Your task to perform on an android device: Go to Amazon Image 0: 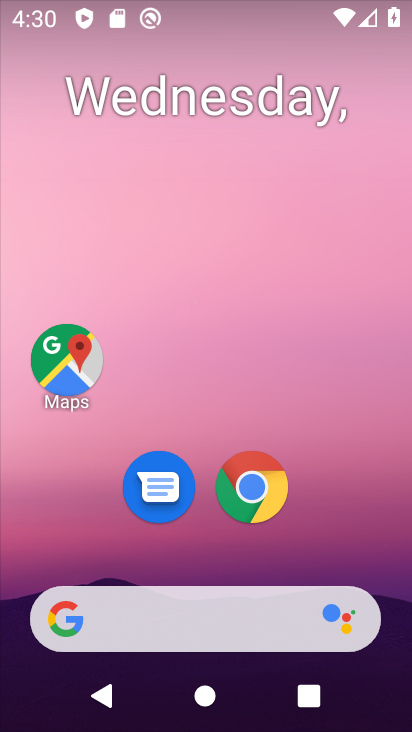
Step 0: press home button
Your task to perform on an android device: Go to Amazon Image 1: 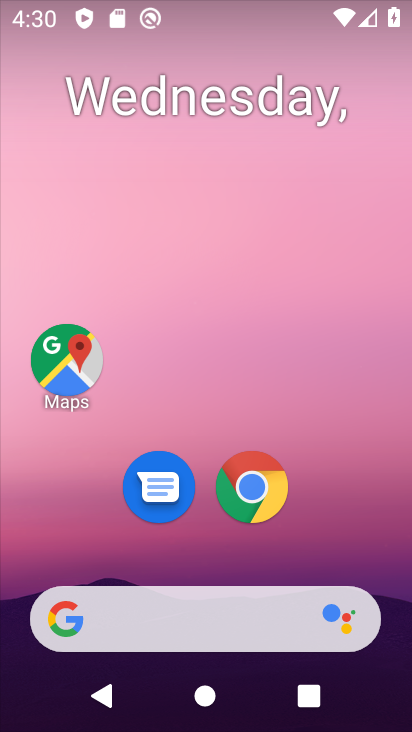
Step 1: click (245, 491)
Your task to perform on an android device: Go to Amazon Image 2: 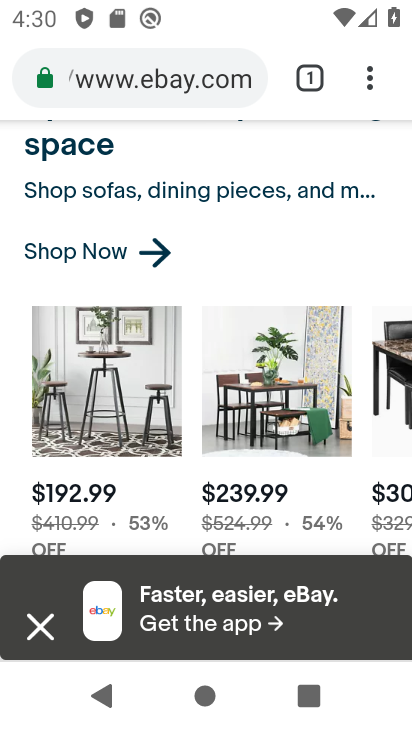
Step 2: click (376, 72)
Your task to perform on an android device: Go to Amazon Image 3: 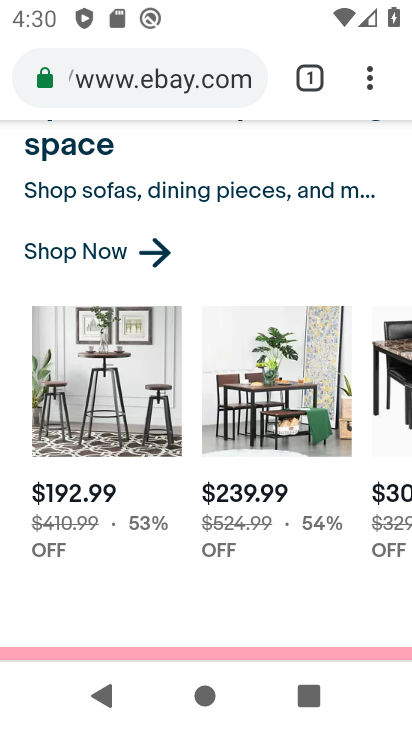
Step 3: click (315, 68)
Your task to perform on an android device: Go to Amazon Image 4: 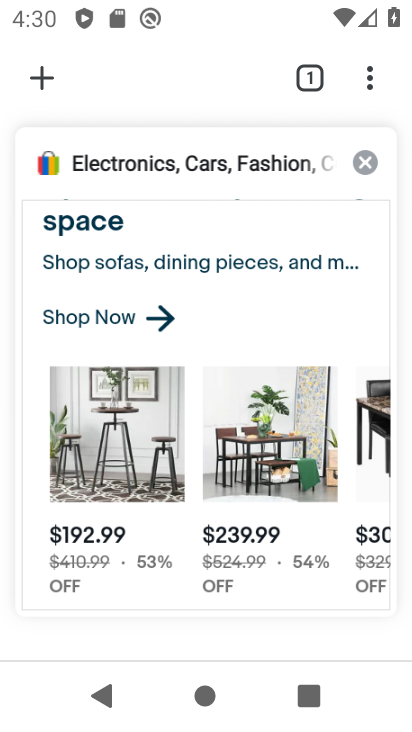
Step 4: click (358, 166)
Your task to perform on an android device: Go to Amazon Image 5: 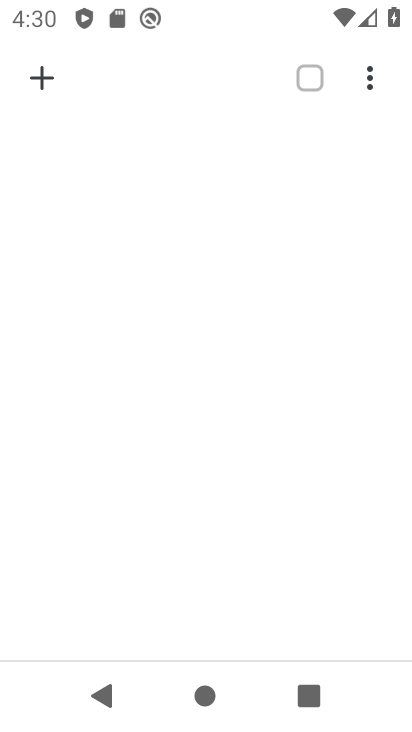
Step 5: click (51, 78)
Your task to perform on an android device: Go to Amazon Image 6: 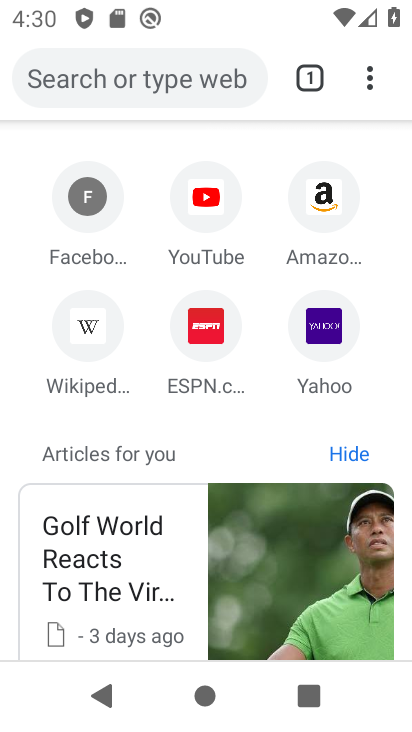
Step 6: click (318, 196)
Your task to perform on an android device: Go to Amazon Image 7: 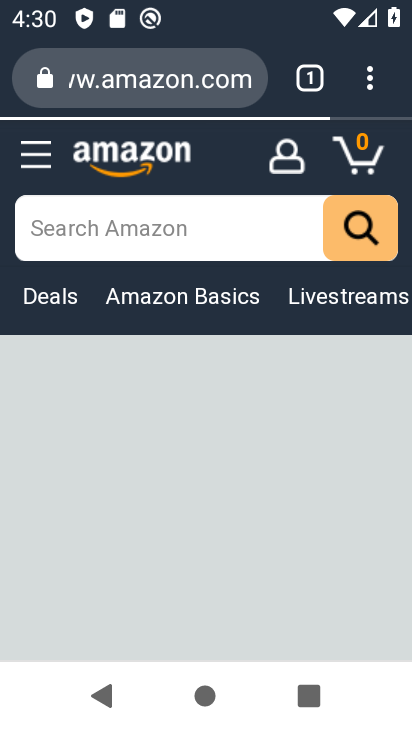
Step 7: task complete